Your task to perform on an android device: open sync settings in chrome Image 0: 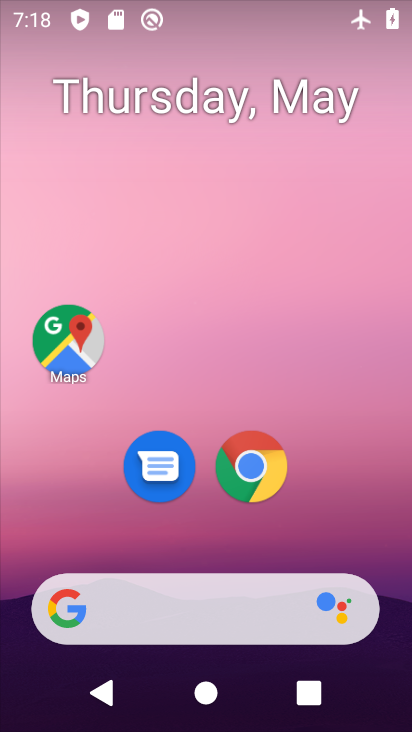
Step 0: click (251, 464)
Your task to perform on an android device: open sync settings in chrome Image 1: 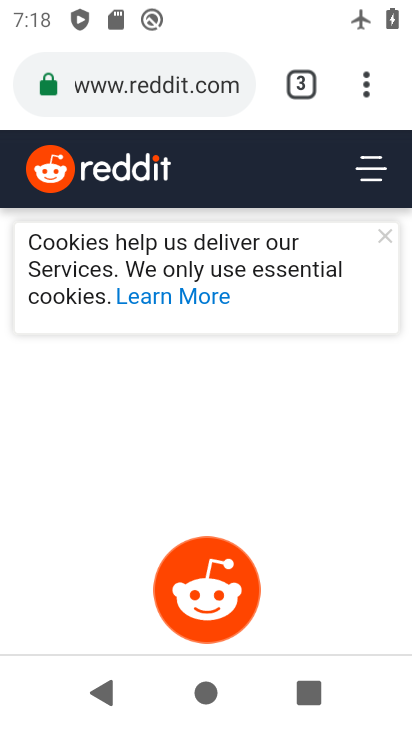
Step 1: click (363, 87)
Your task to perform on an android device: open sync settings in chrome Image 2: 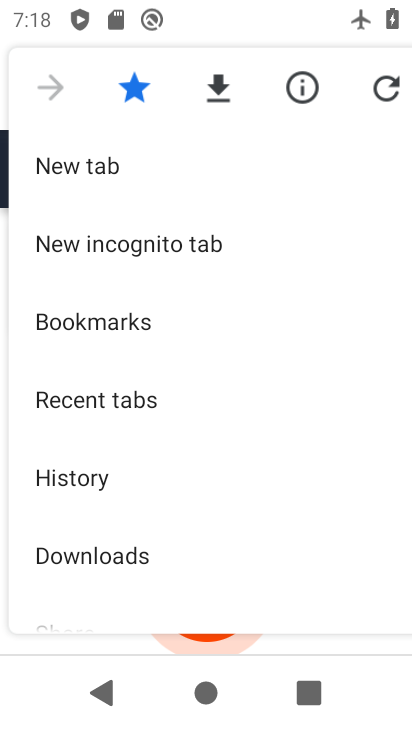
Step 2: drag from (249, 490) to (166, 188)
Your task to perform on an android device: open sync settings in chrome Image 3: 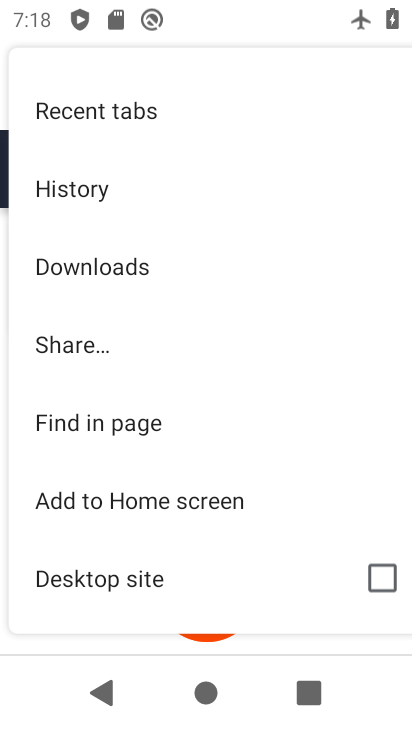
Step 3: drag from (221, 531) to (142, 175)
Your task to perform on an android device: open sync settings in chrome Image 4: 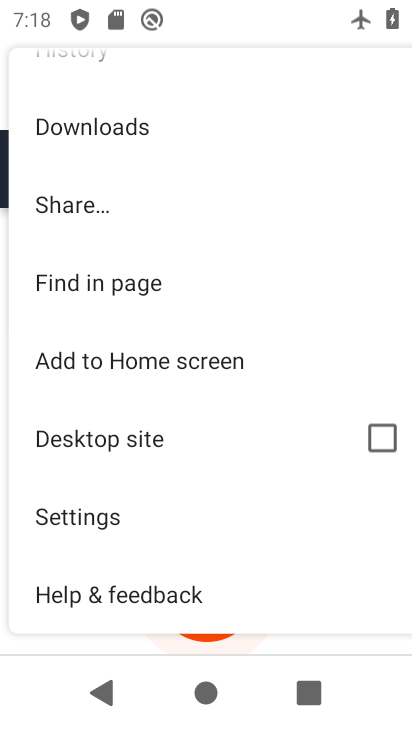
Step 4: click (81, 507)
Your task to perform on an android device: open sync settings in chrome Image 5: 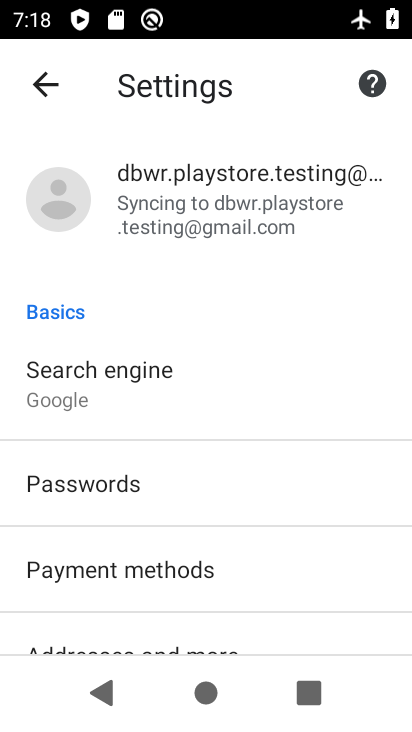
Step 5: click (193, 184)
Your task to perform on an android device: open sync settings in chrome Image 6: 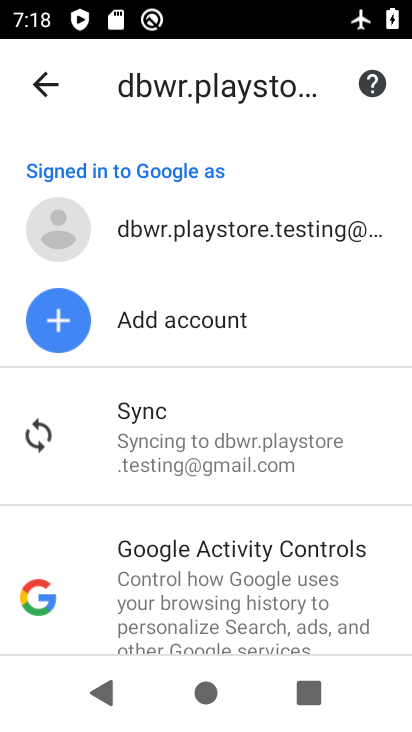
Step 6: click (152, 433)
Your task to perform on an android device: open sync settings in chrome Image 7: 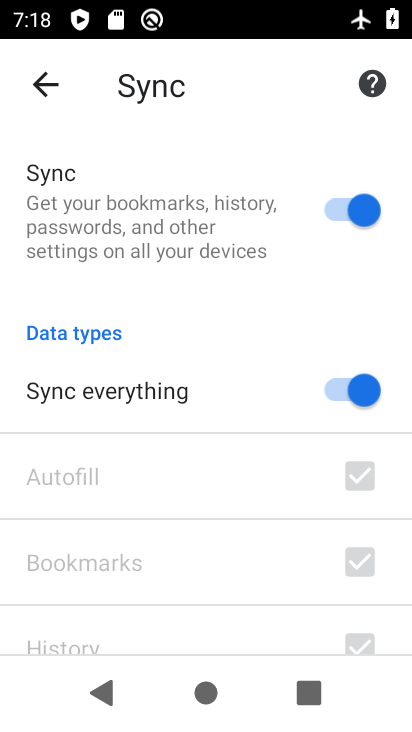
Step 7: task complete